Your task to perform on an android device: turn on bluetooth scan Image 0: 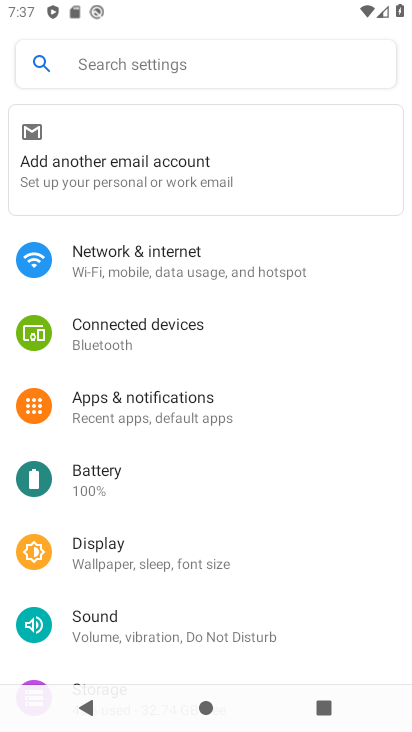
Step 0: press home button
Your task to perform on an android device: turn on bluetooth scan Image 1: 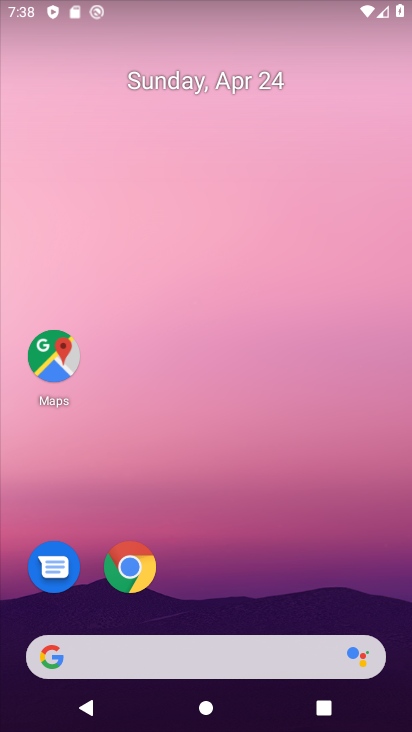
Step 1: drag from (228, 377) to (246, 227)
Your task to perform on an android device: turn on bluetooth scan Image 2: 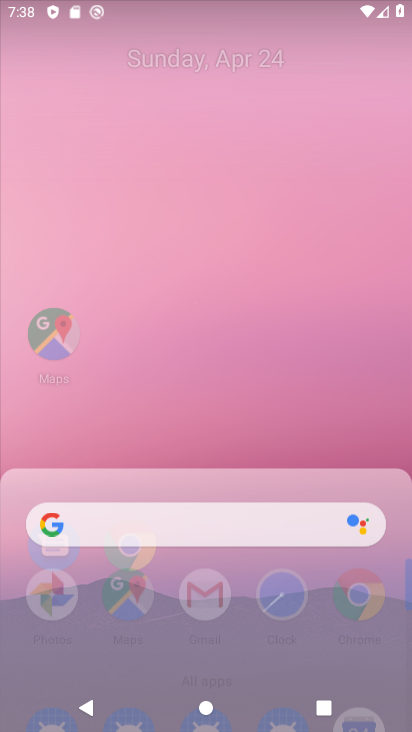
Step 2: drag from (256, 113) to (268, 31)
Your task to perform on an android device: turn on bluetooth scan Image 3: 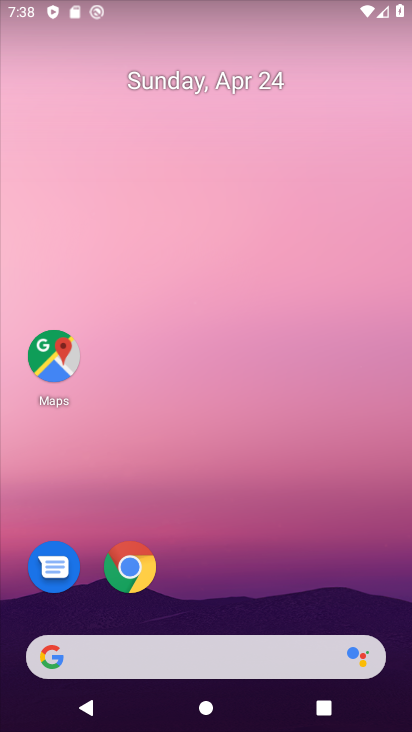
Step 3: drag from (346, 563) to (259, 58)
Your task to perform on an android device: turn on bluetooth scan Image 4: 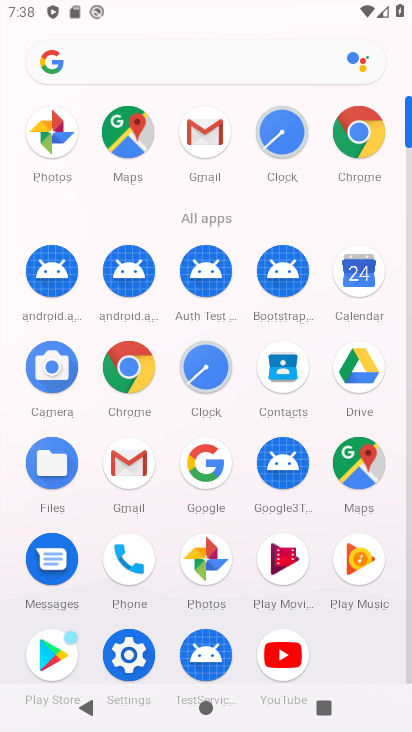
Step 4: click (128, 658)
Your task to perform on an android device: turn on bluetooth scan Image 5: 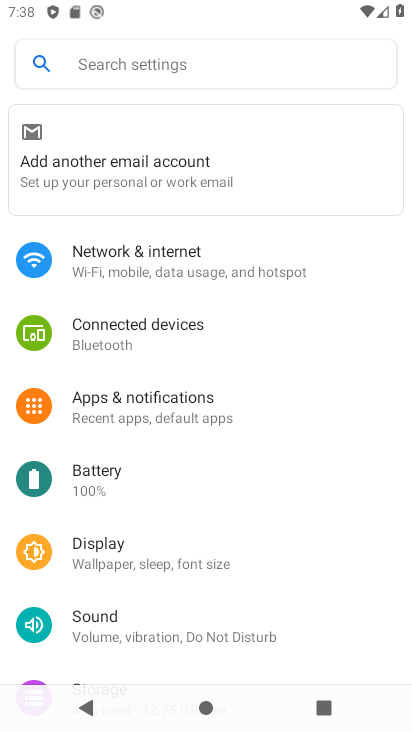
Step 5: drag from (309, 518) to (268, 6)
Your task to perform on an android device: turn on bluetooth scan Image 6: 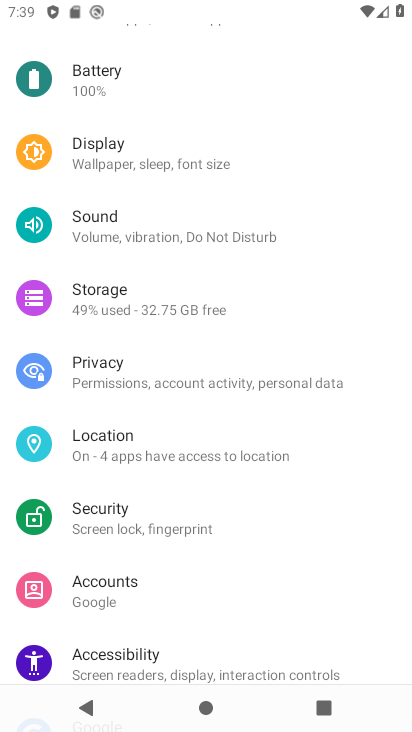
Step 6: drag from (201, 604) to (173, 279)
Your task to perform on an android device: turn on bluetooth scan Image 7: 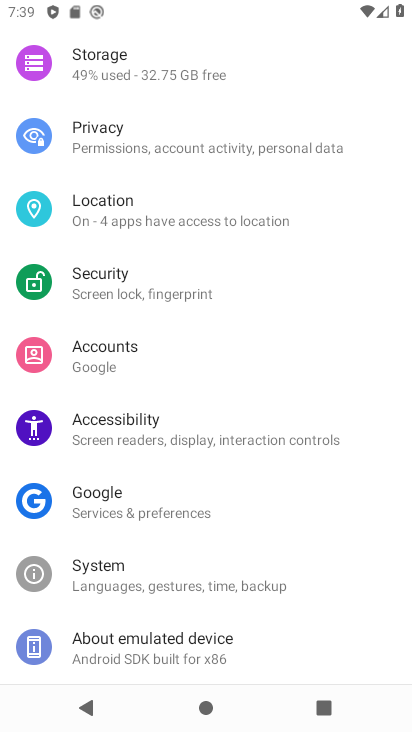
Step 7: click (158, 223)
Your task to perform on an android device: turn on bluetooth scan Image 8: 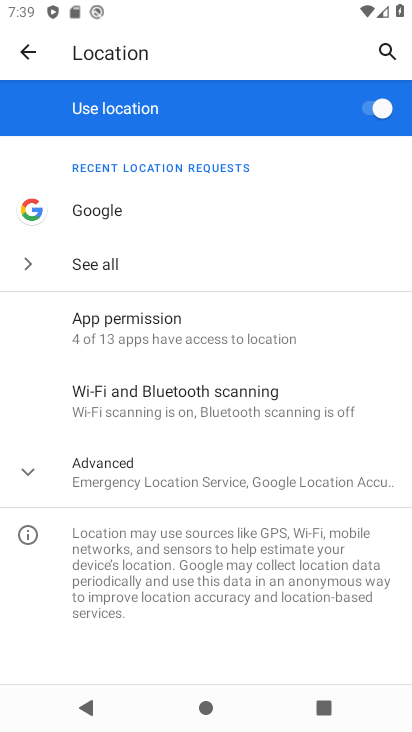
Step 8: click (161, 423)
Your task to perform on an android device: turn on bluetooth scan Image 9: 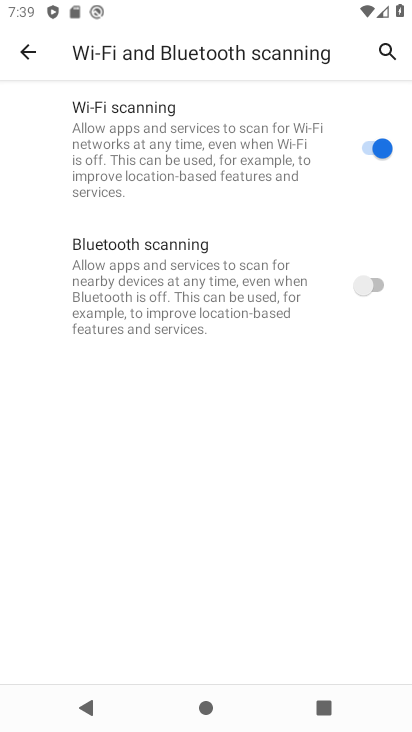
Step 9: click (378, 283)
Your task to perform on an android device: turn on bluetooth scan Image 10: 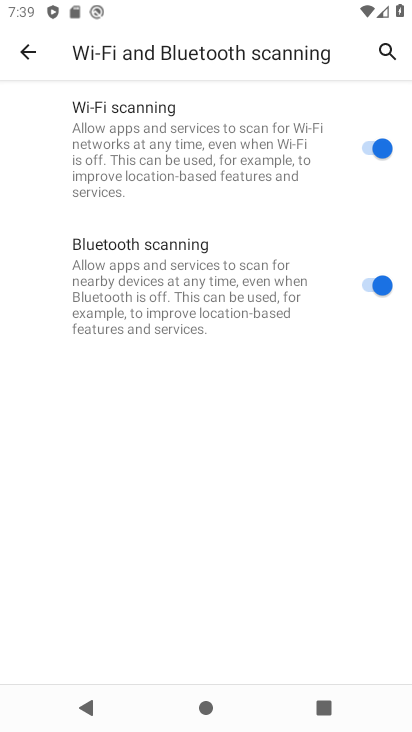
Step 10: task complete